Your task to perform on an android device: turn on the 12-hour format for clock Image 0: 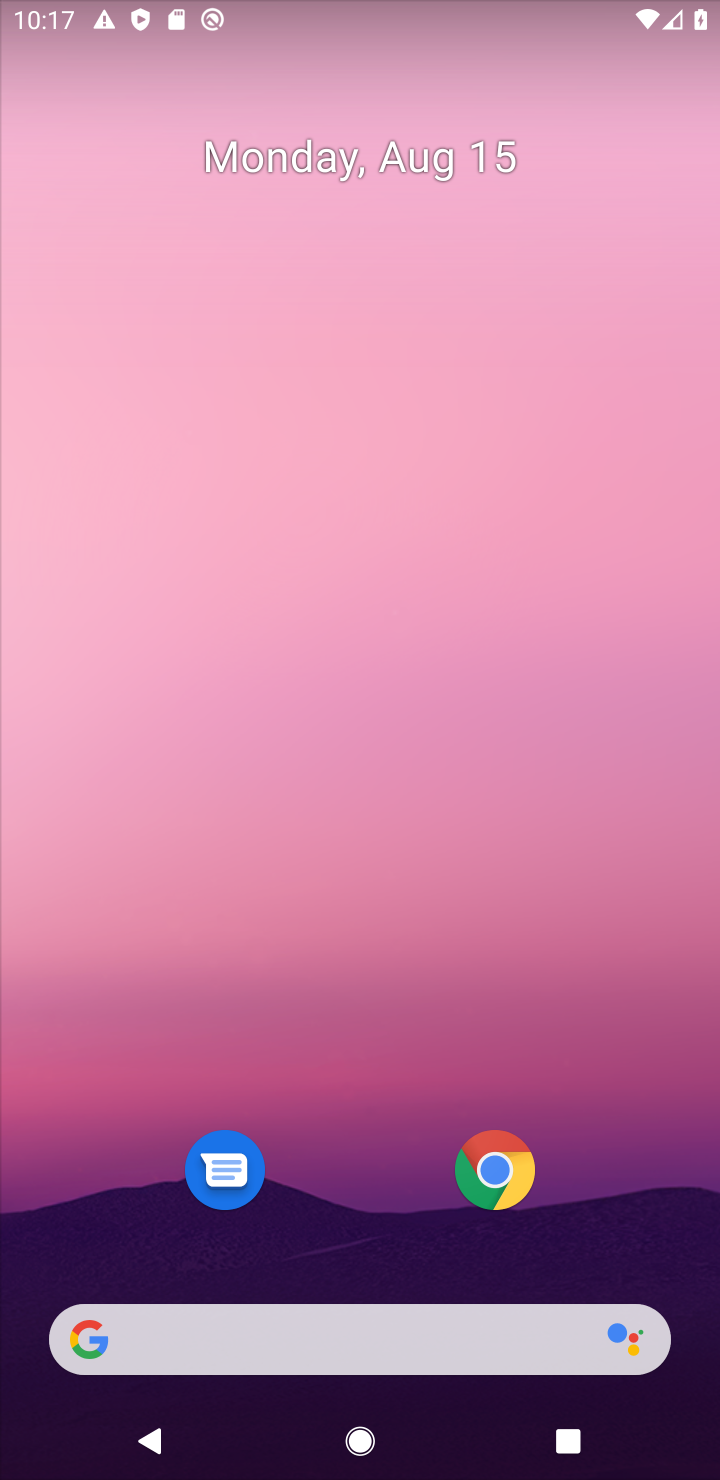
Step 0: press home button
Your task to perform on an android device: turn on the 12-hour format for clock Image 1: 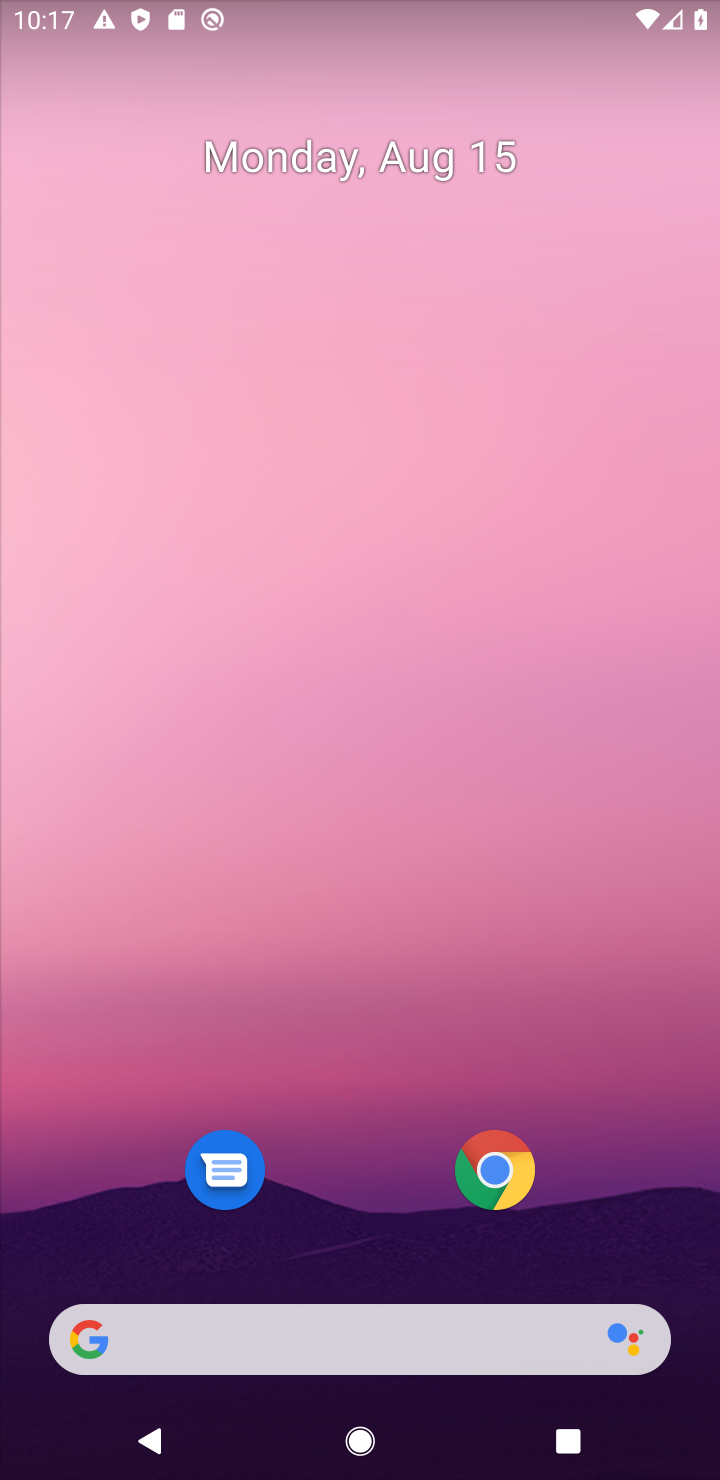
Step 1: drag from (479, 260) to (486, 79)
Your task to perform on an android device: turn on the 12-hour format for clock Image 2: 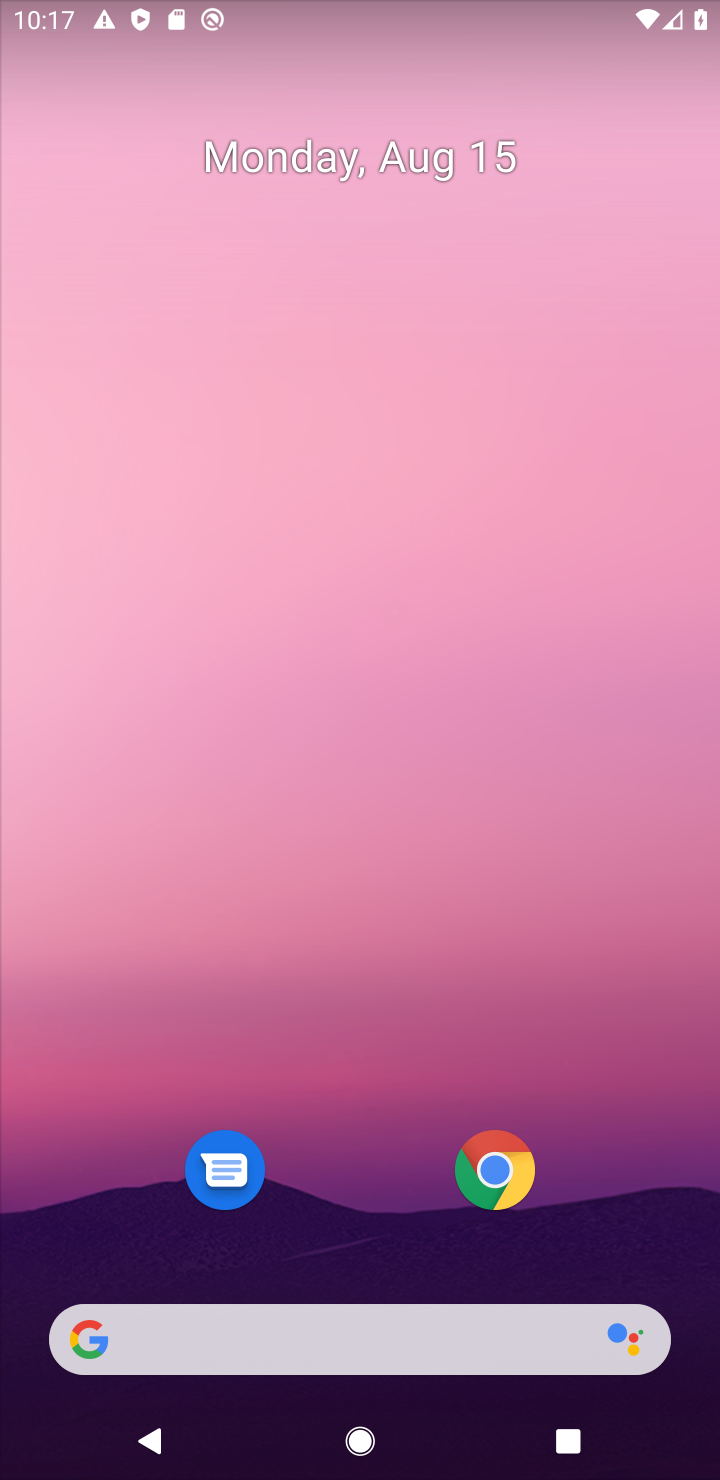
Step 2: drag from (374, 1255) to (495, 16)
Your task to perform on an android device: turn on the 12-hour format for clock Image 3: 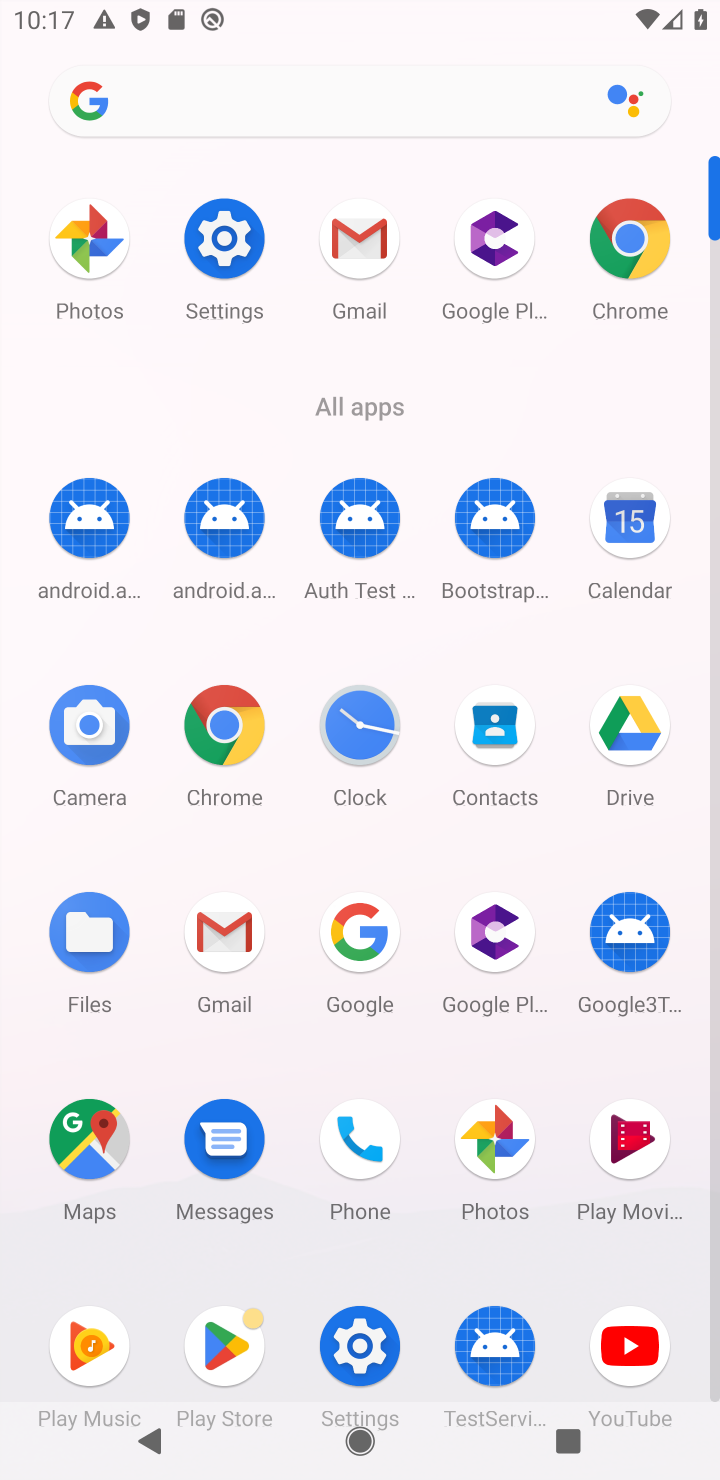
Step 3: click (348, 705)
Your task to perform on an android device: turn on the 12-hour format for clock Image 4: 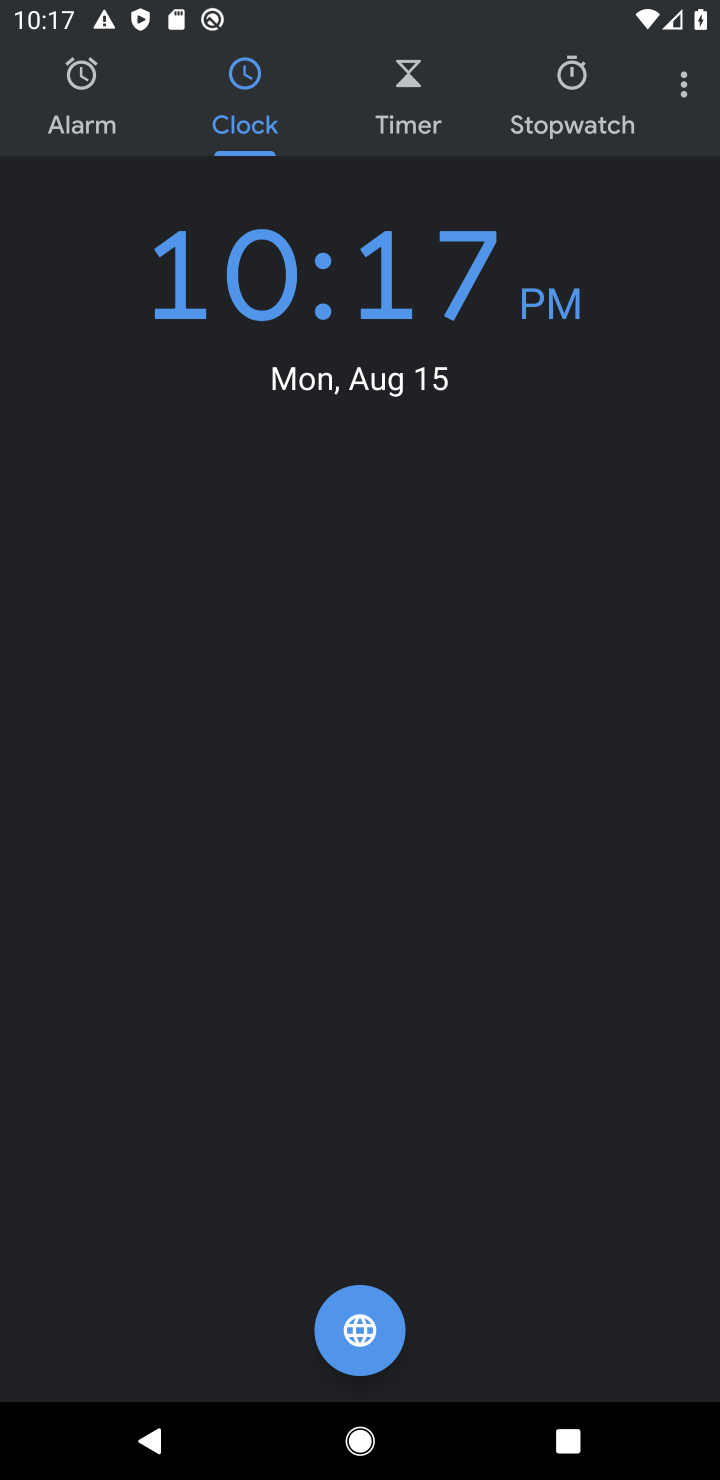
Step 4: click (688, 81)
Your task to perform on an android device: turn on the 12-hour format for clock Image 5: 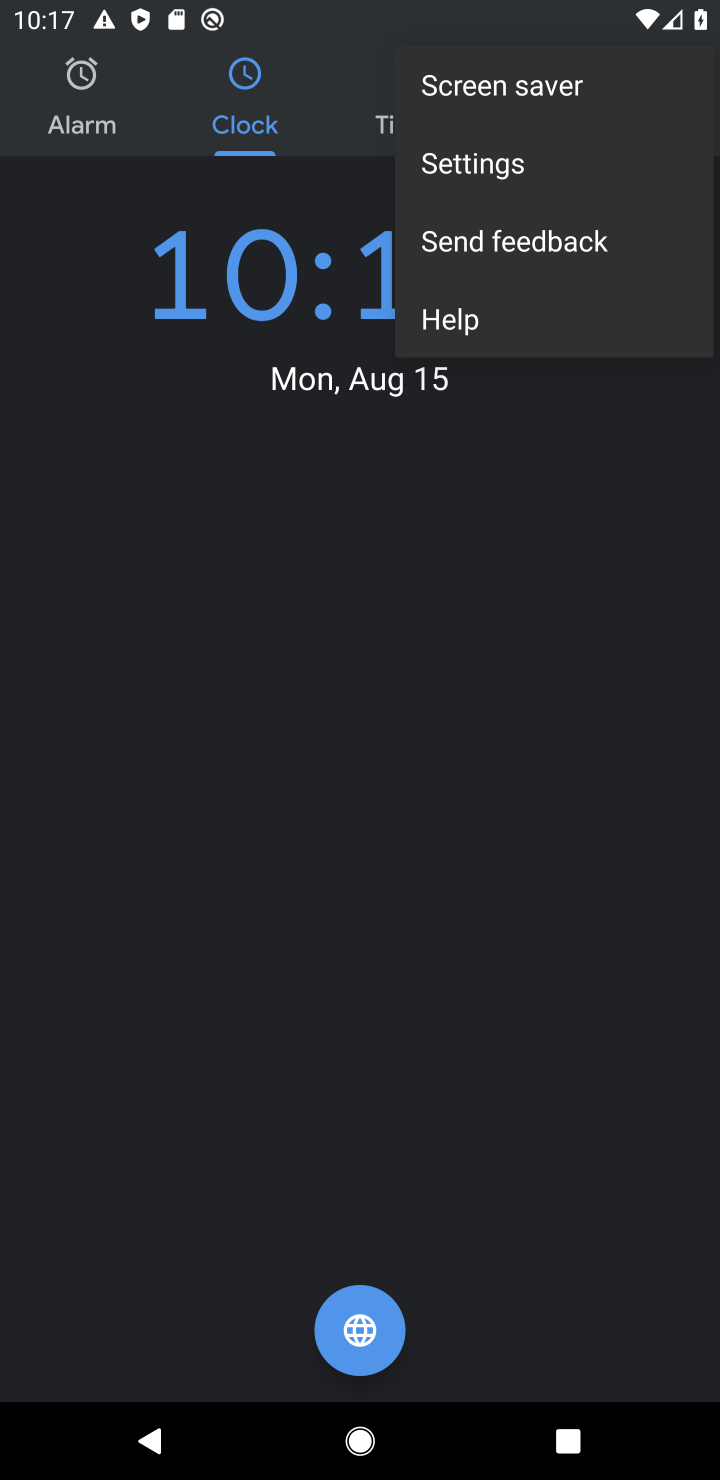
Step 5: click (481, 179)
Your task to perform on an android device: turn on the 12-hour format for clock Image 6: 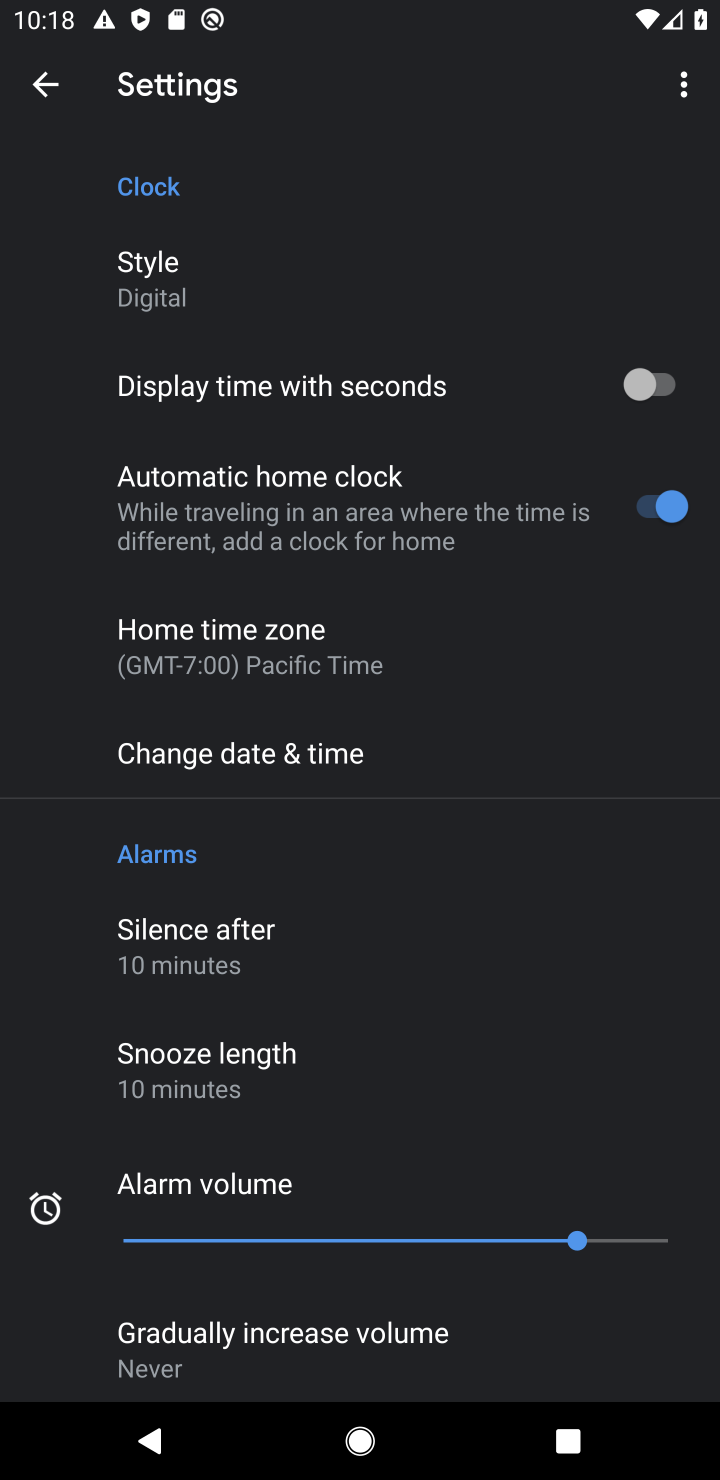
Step 6: click (385, 757)
Your task to perform on an android device: turn on the 12-hour format for clock Image 7: 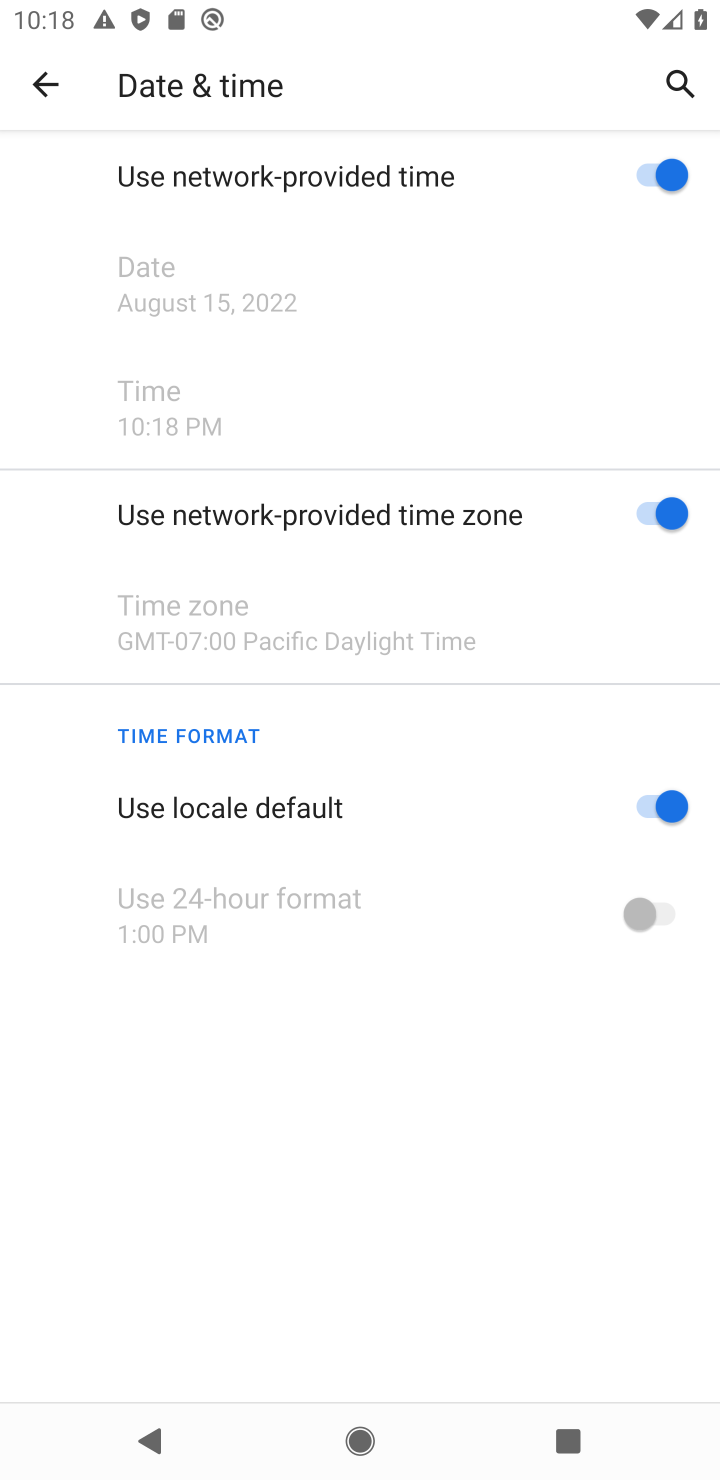
Step 7: task complete